Your task to perform on an android device: turn off smart reply in the gmail app Image 0: 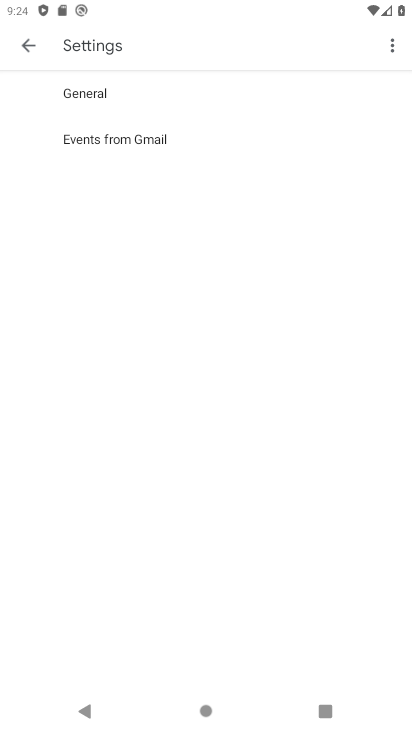
Step 0: press home button
Your task to perform on an android device: turn off smart reply in the gmail app Image 1: 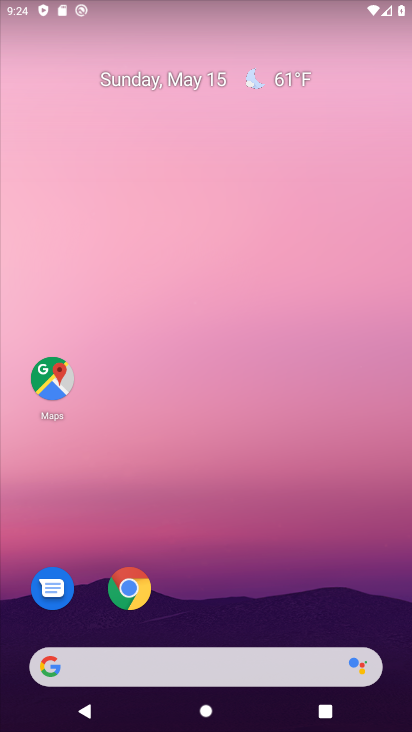
Step 1: drag from (283, 646) to (246, 0)
Your task to perform on an android device: turn off smart reply in the gmail app Image 2: 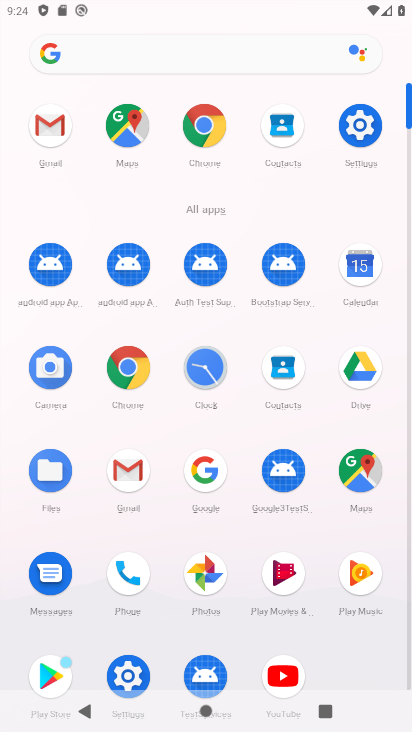
Step 2: click (111, 472)
Your task to perform on an android device: turn off smart reply in the gmail app Image 3: 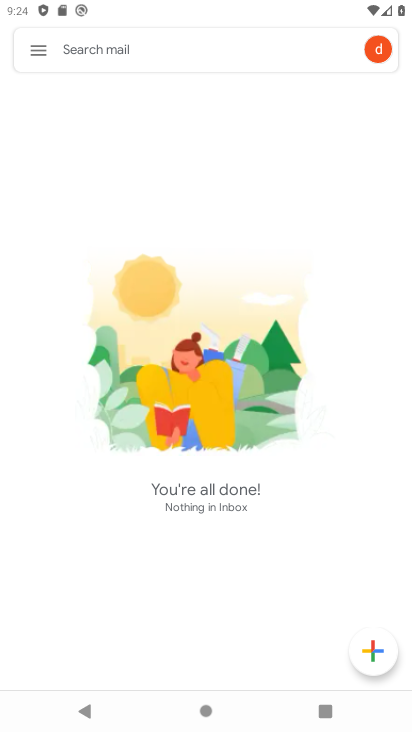
Step 3: click (38, 50)
Your task to perform on an android device: turn off smart reply in the gmail app Image 4: 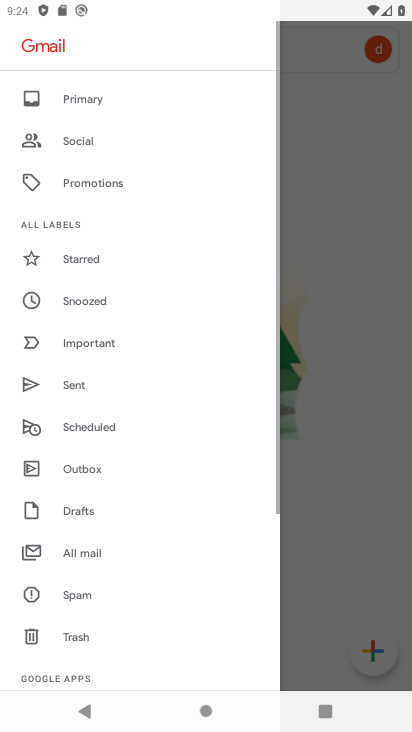
Step 4: drag from (96, 651) to (162, 179)
Your task to perform on an android device: turn off smart reply in the gmail app Image 5: 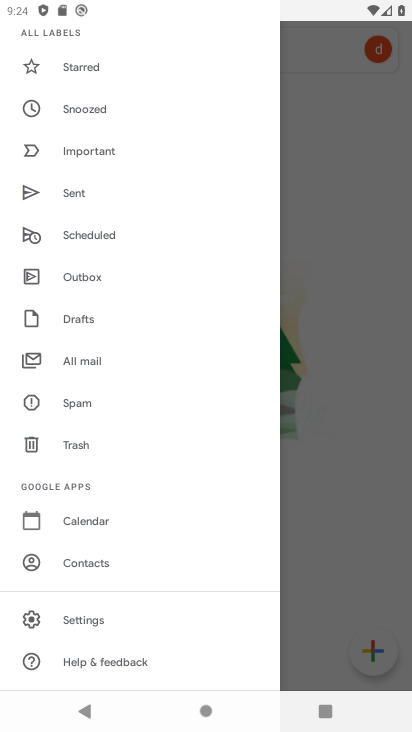
Step 5: click (94, 623)
Your task to perform on an android device: turn off smart reply in the gmail app Image 6: 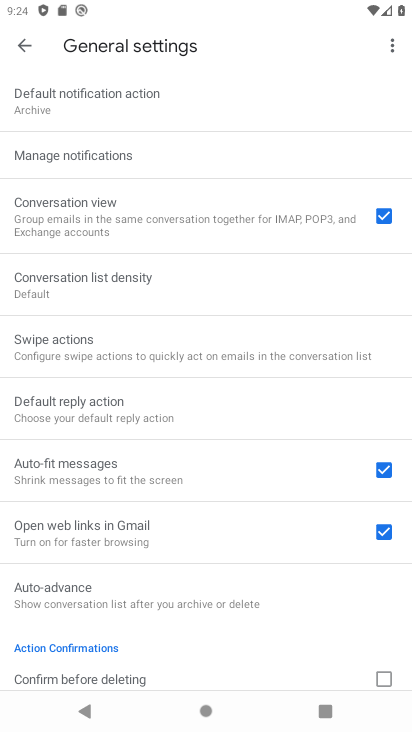
Step 6: click (22, 39)
Your task to perform on an android device: turn off smart reply in the gmail app Image 7: 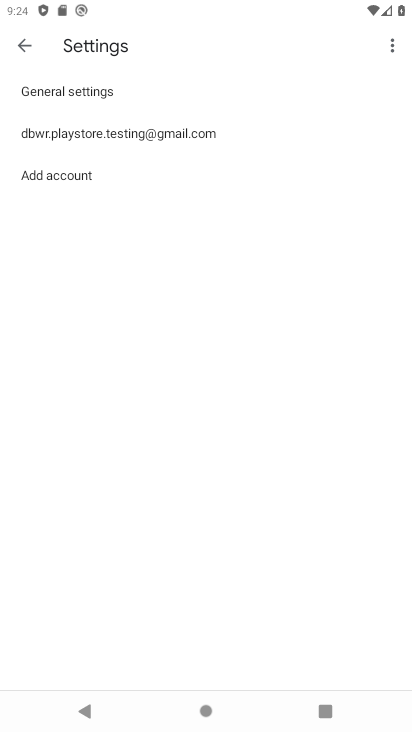
Step 7: click (103, 129)
Your task to perform on an android device: turn off smart reply in the gmail app Image 8: 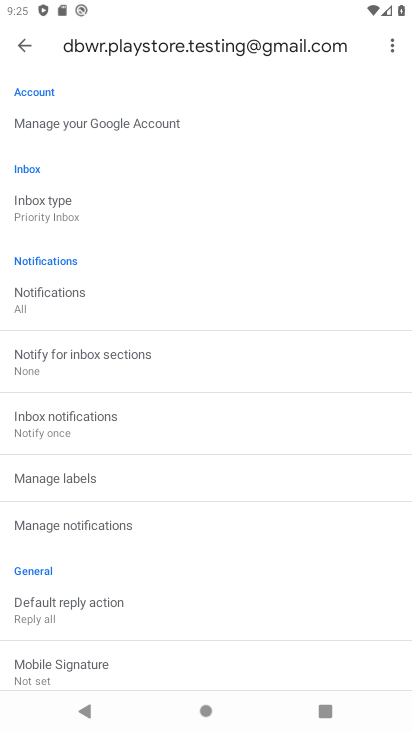
Step 8: drag from (116, 595) to (163, 277)
Your task to perform on an android device: turn off smart reply in the gmail app Image 9: 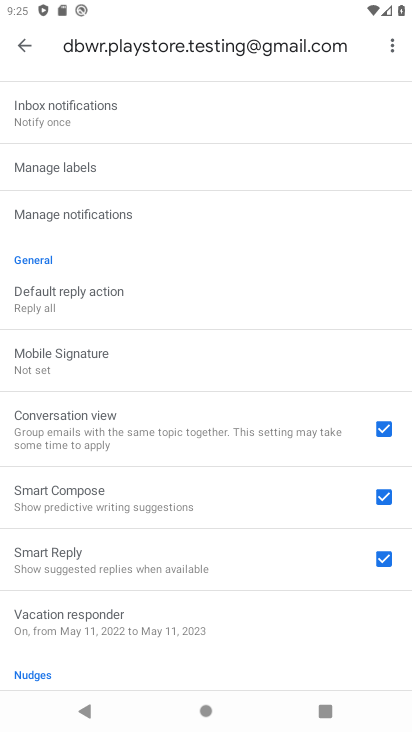
Step 9: click (382, 563)
Your task to perform on an android device: turn off smart reply in the gmail app Image 10: 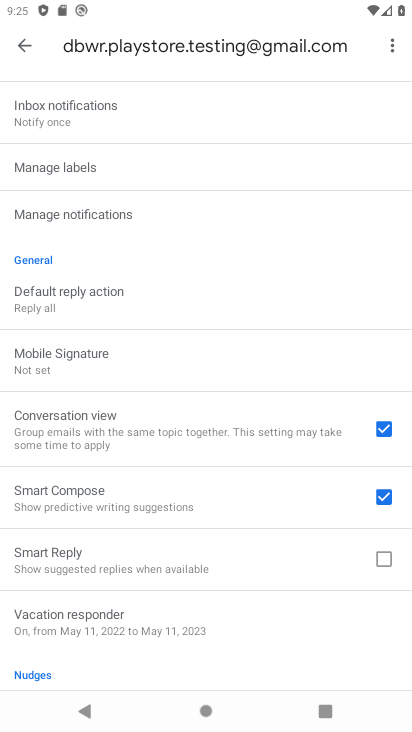
Step 10: task complete